Your task to perform on an android device: Open Google Maps Image 0: 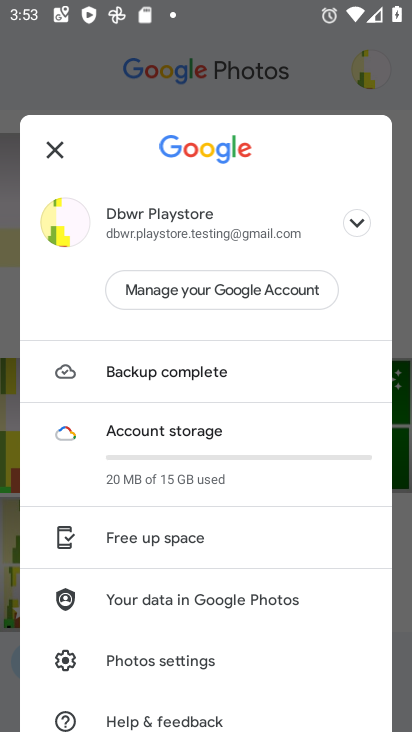
Step 0: task complete